Your task to perform on an android device: open app "Speedtest by Ookla" Image 0: 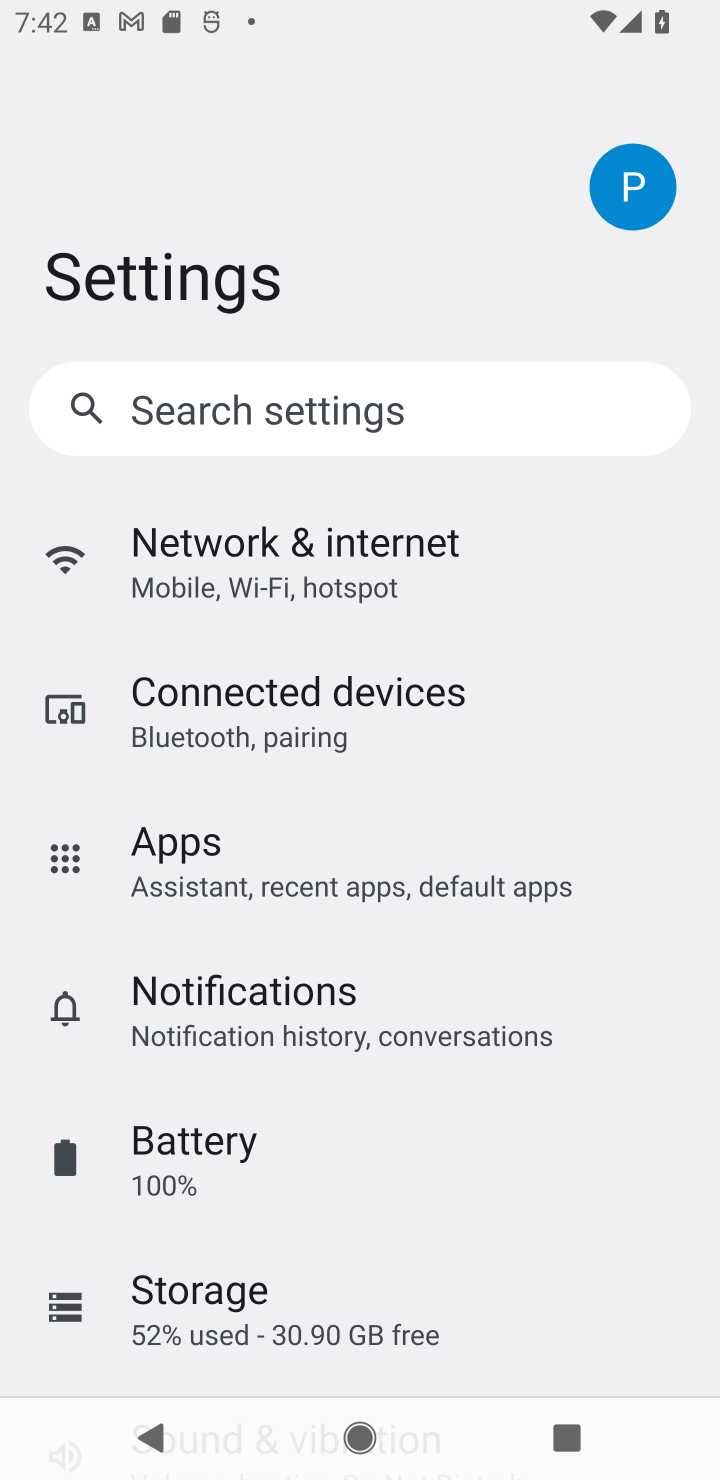
Step 0: press home button
Your task to perform on an android device: open app "Speedtest by Ookla" Image 1: 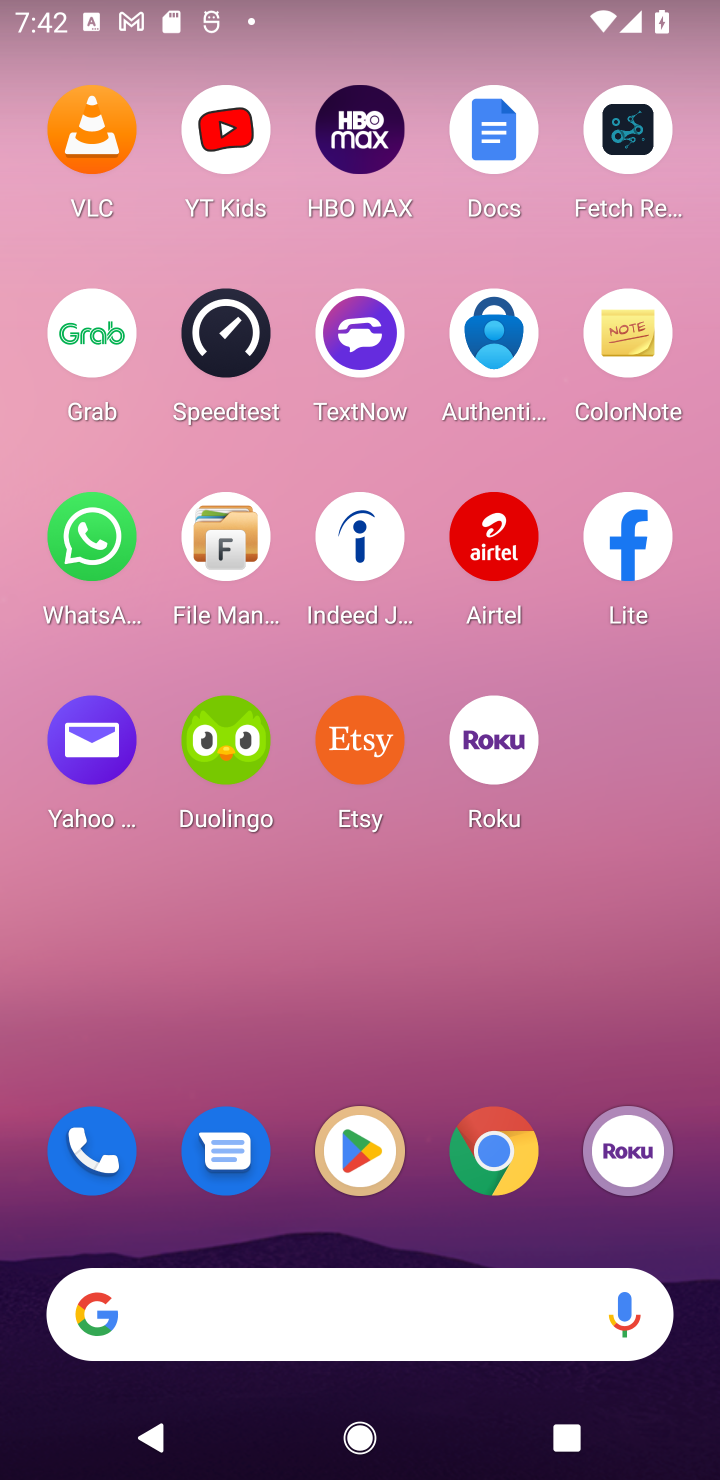
Step 1: press home button
Your task to perform on an android device: open app "Speedtest by Ookla" Image 2: 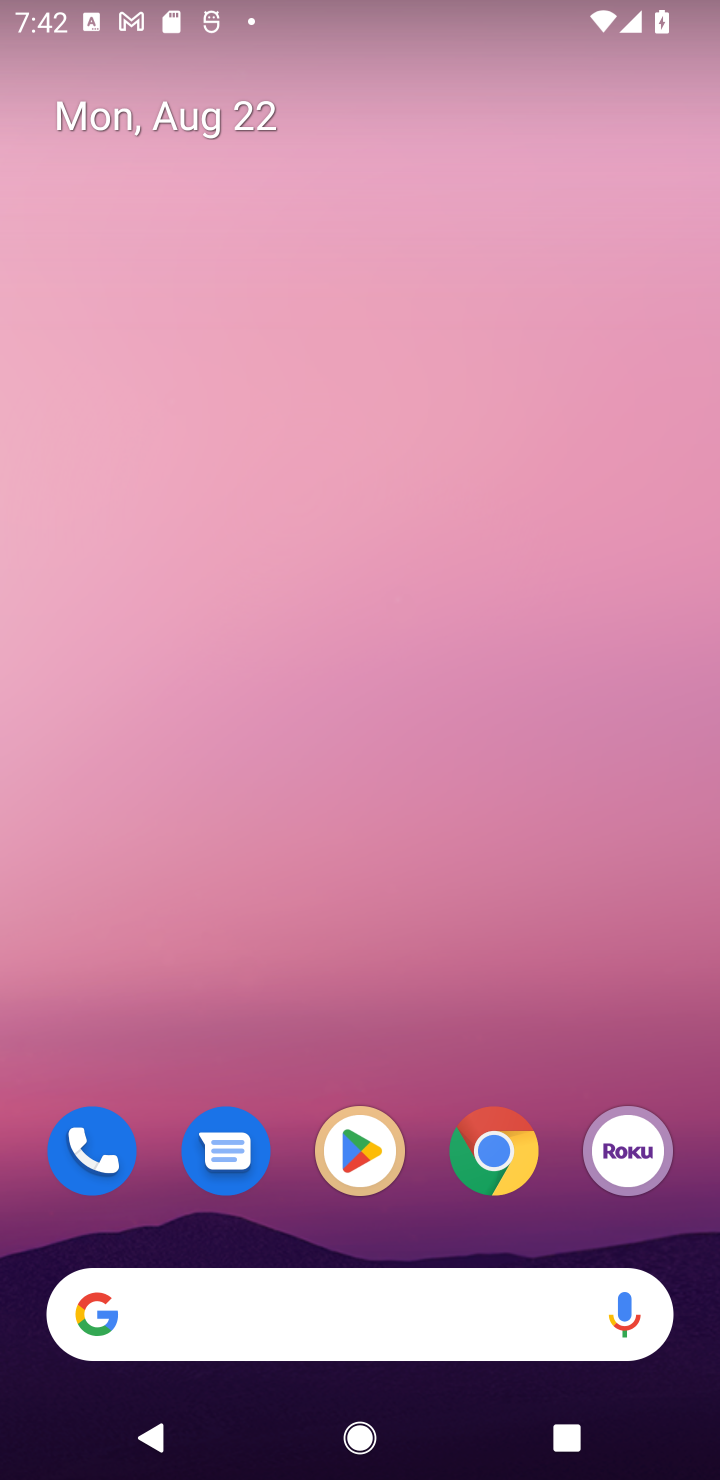
Step 2: click (351, 1152)
Your task to perform on an android device: open app "Speedtest by Ookla" Image 3: 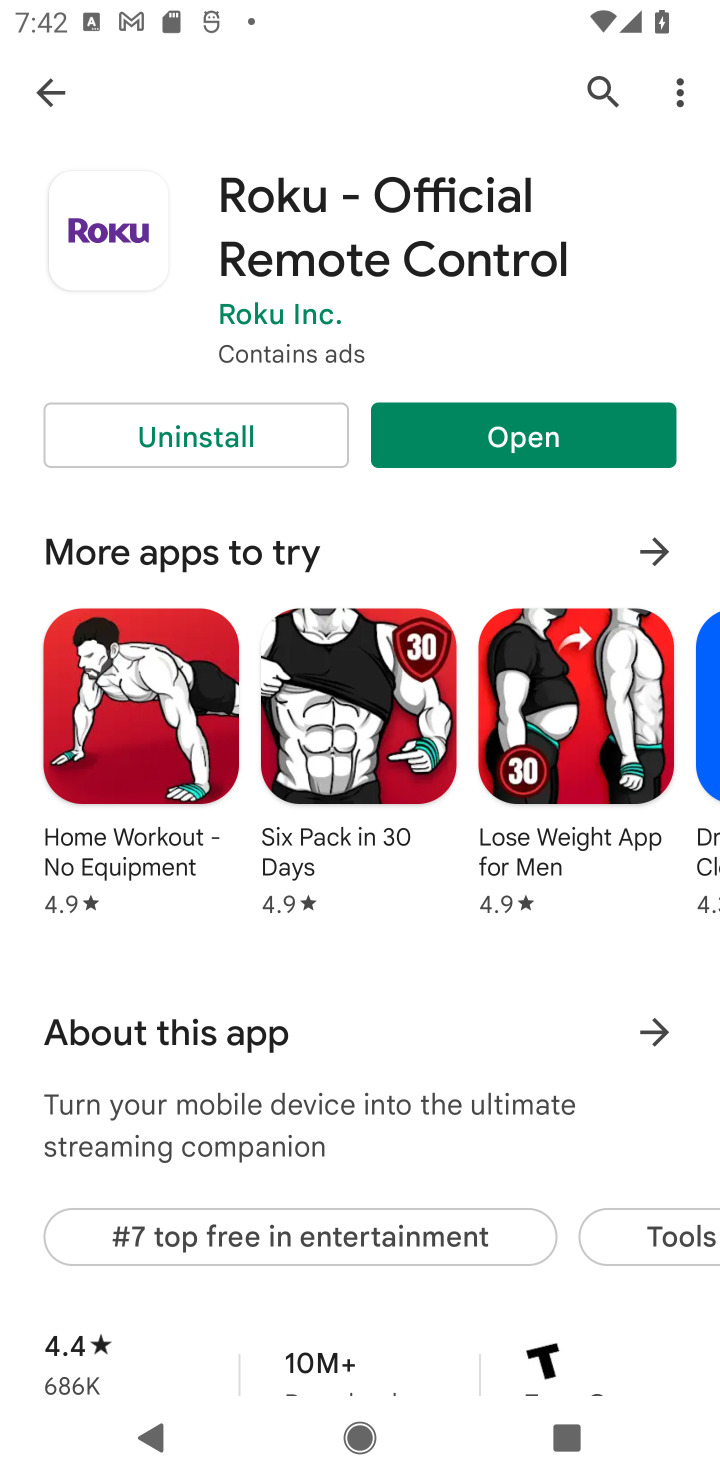
Step 3: click (586, 77)
Your task to perform on an android device: open app "Speedtest by Ookla" Image 4: 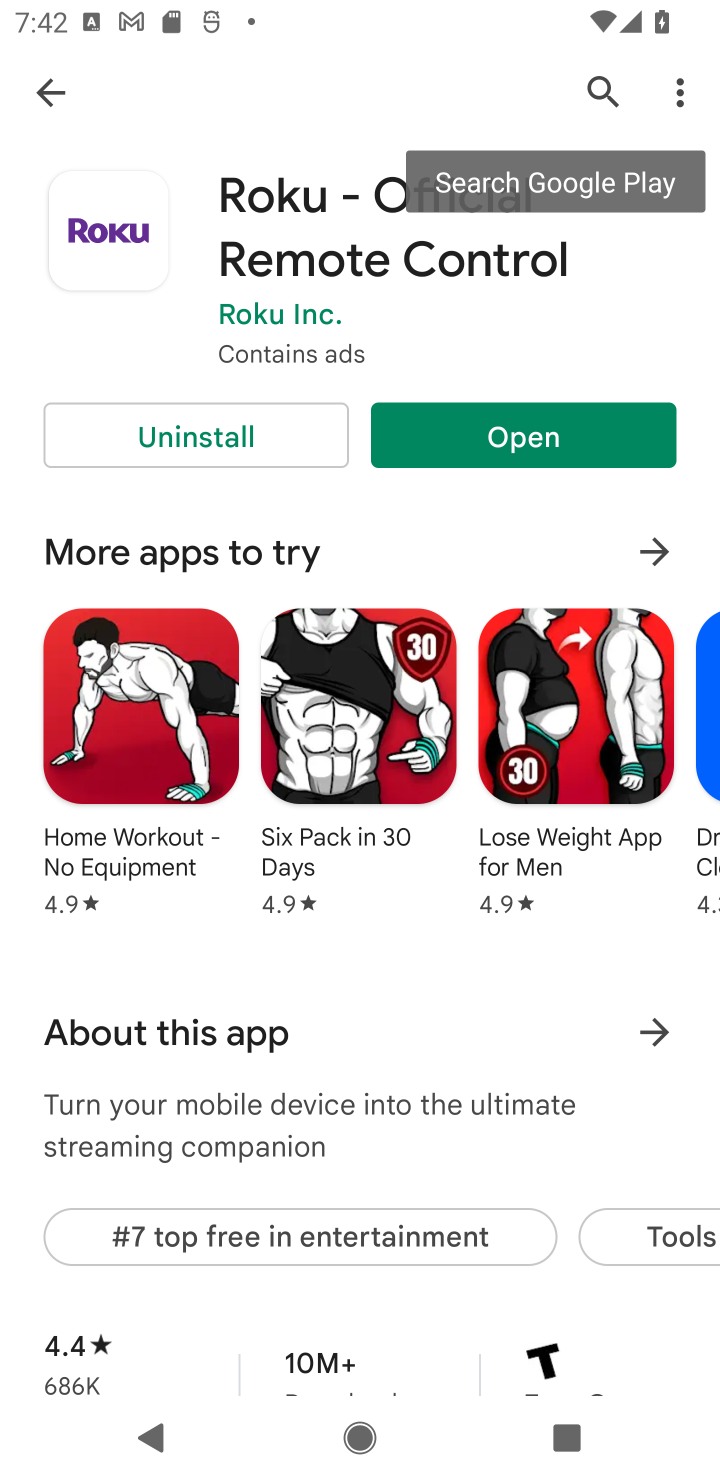
Step 4: click (599, 86)
Your task to perform on an android device: open app "Speedtest by Ookla" Image 5: 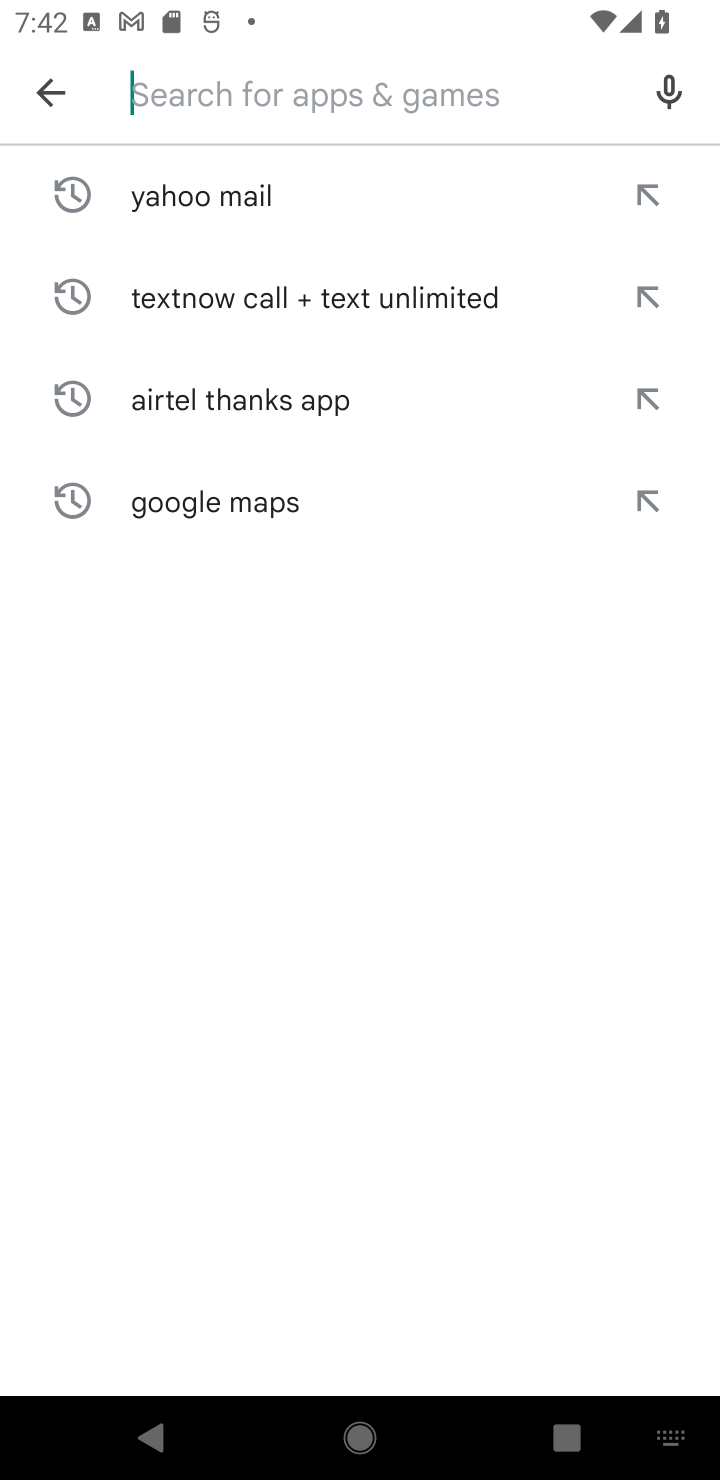
Step 5: type "Speedtest by Ookla"
Your task to perform on an android device: open app "Speedtest by Ookla" Image 6: 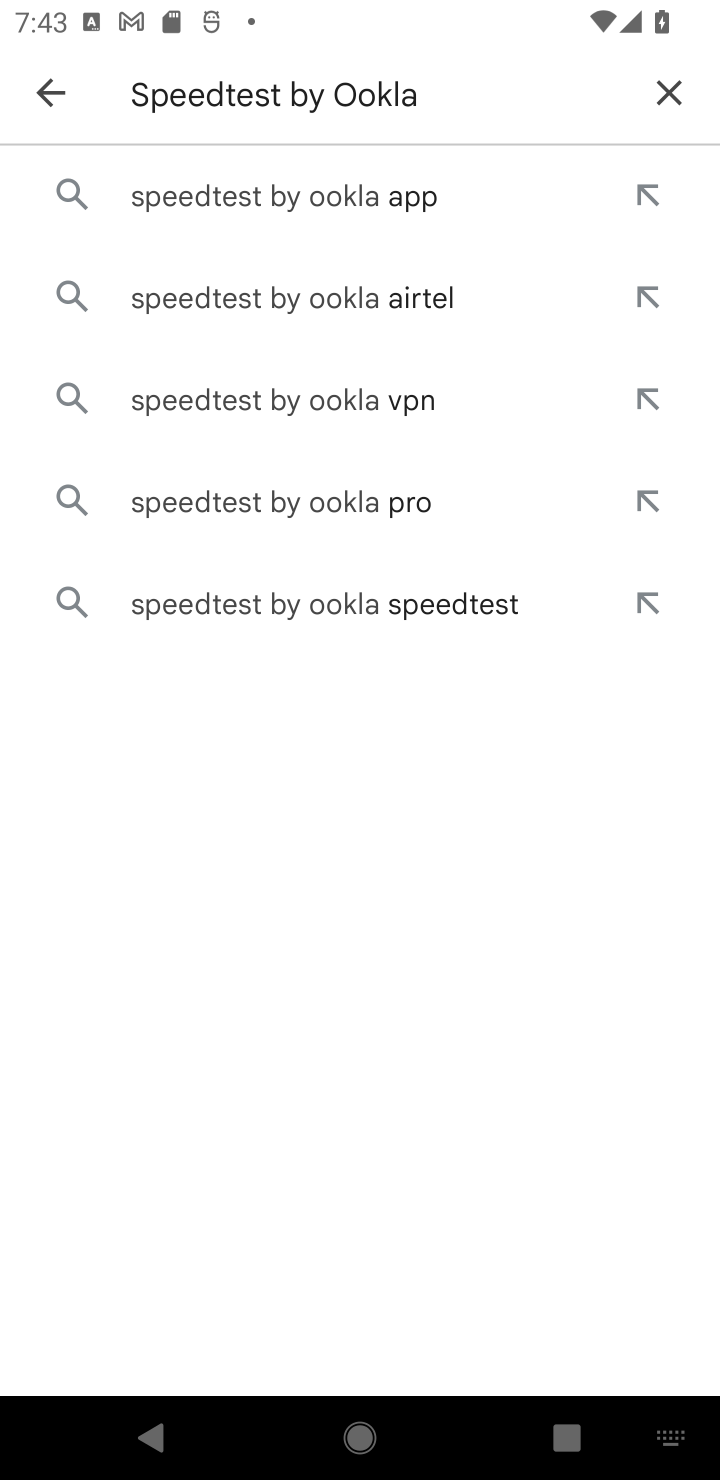
Step 6: click (301, 205)
Your task to perform on an android device: open app "Speedtest by Ookla" Image 7: 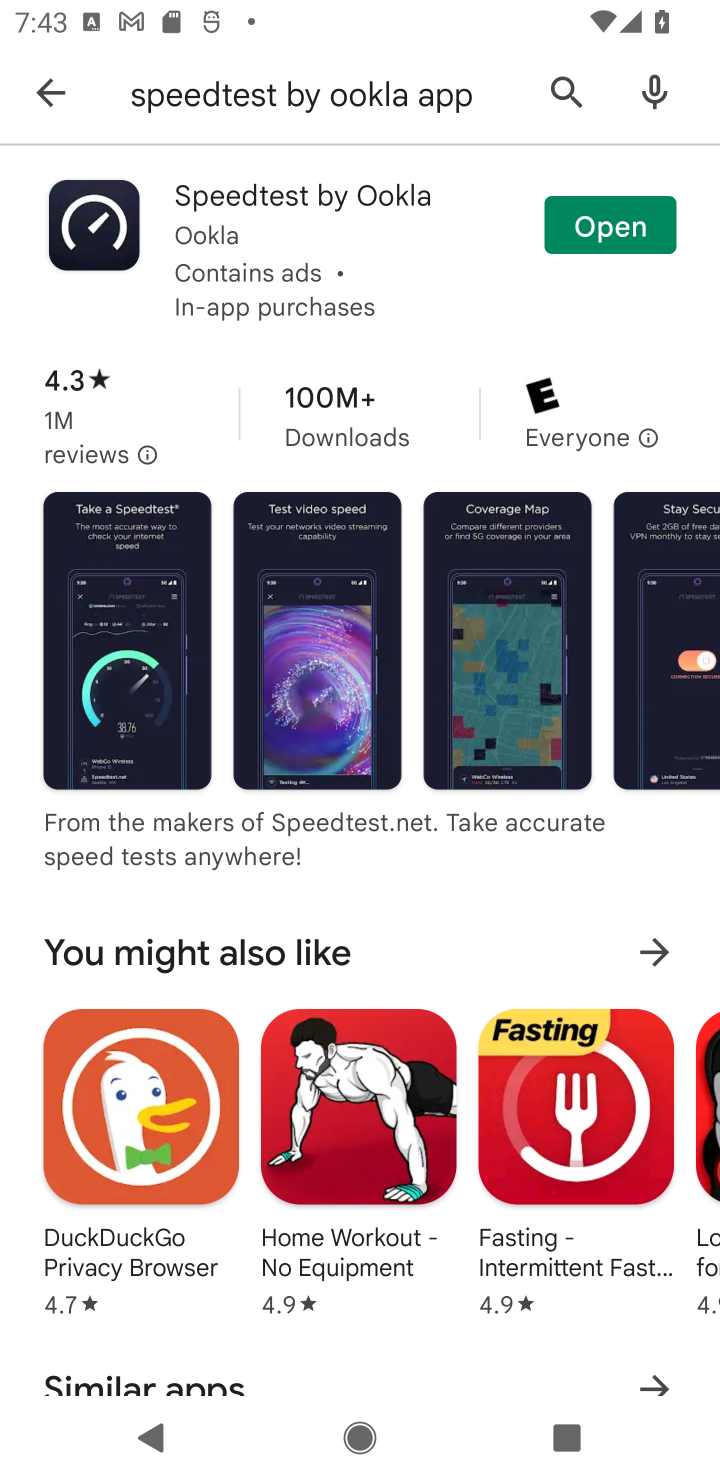
Step 7: click (614, 222)
Your task to perform on an android device: open app "Speedtest by Ookla" Image 8: 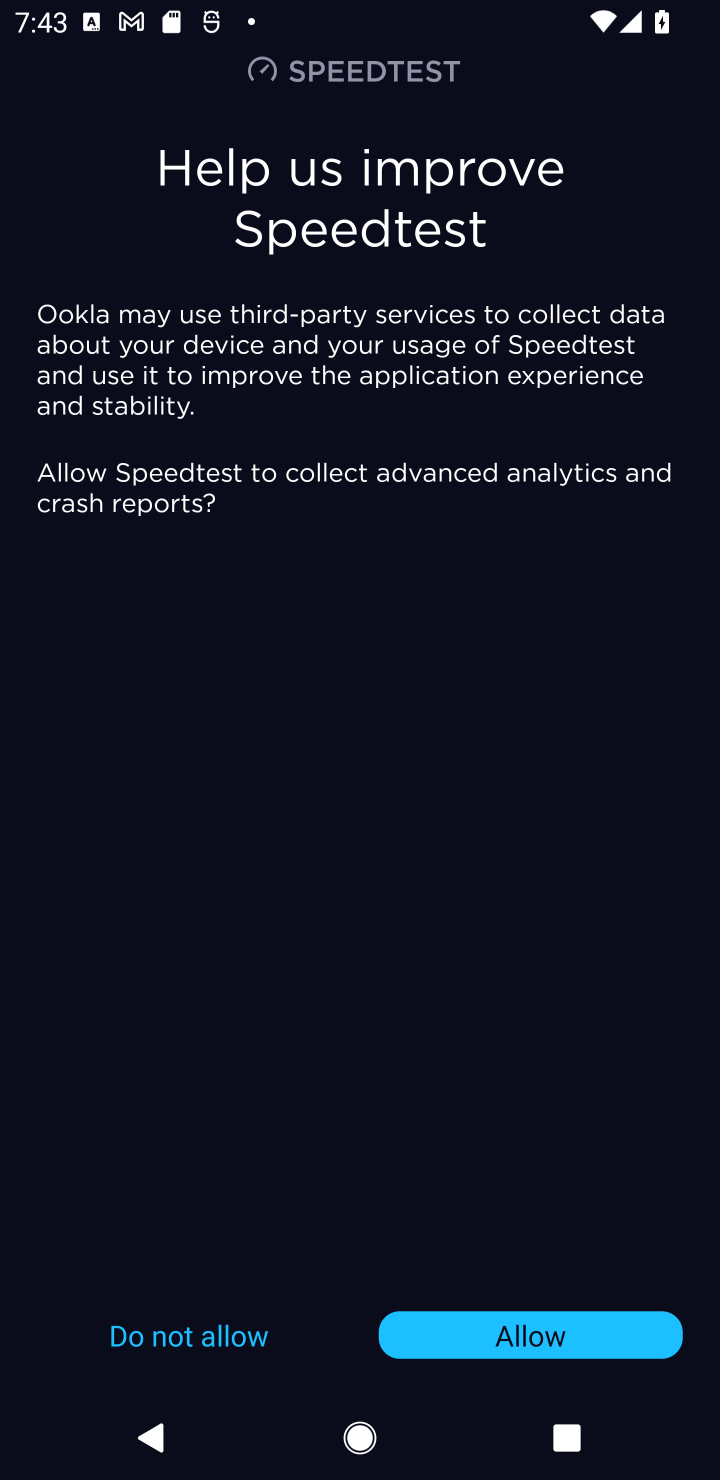
Step 8: task complete